Your task to perform on an android device: change the clock display to digital Image 0: 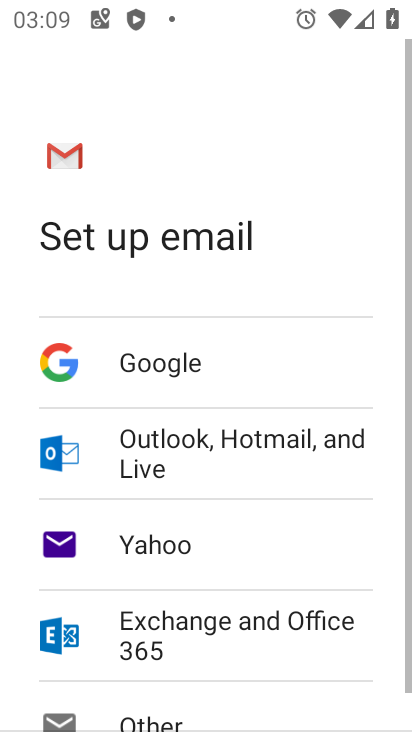
Step 0: press home button
Your task to perform on an android device: change the clock display to digital Image 1: 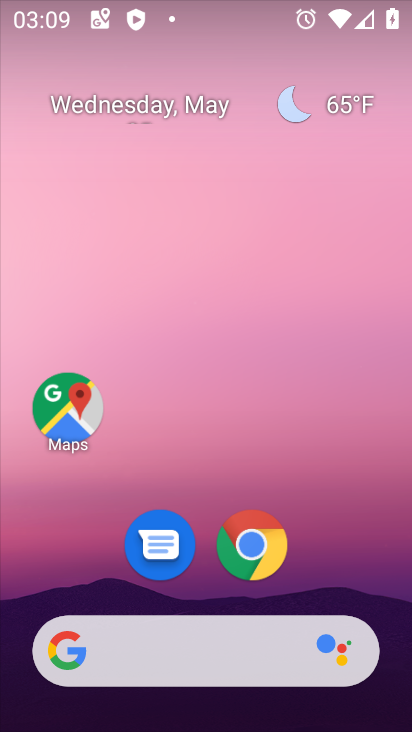
Step 1: drag from (342, 538) to (232, 10)
Your task to perform on an android device: change the clock display to digital Image 2: 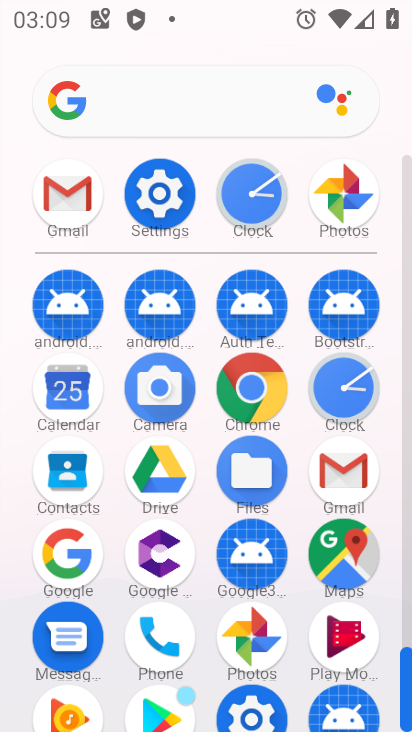
Step 2: click (340, 392)
Your task to perform on an android device: change the clock display to digital Image 3: 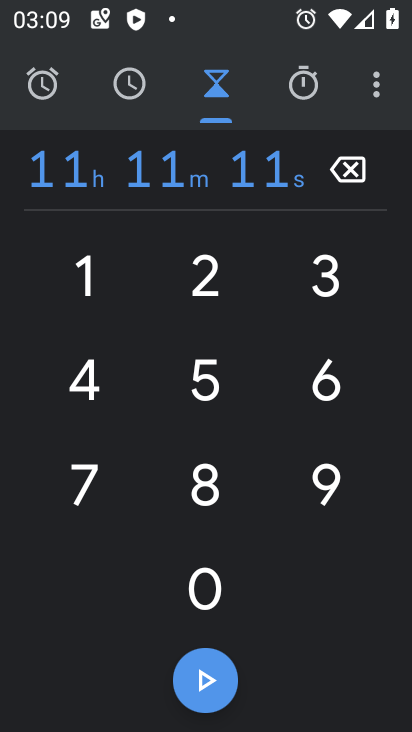
Step 3: click (373, 91)
Your task to perform on an android device: change the clock display to digital Image 4: 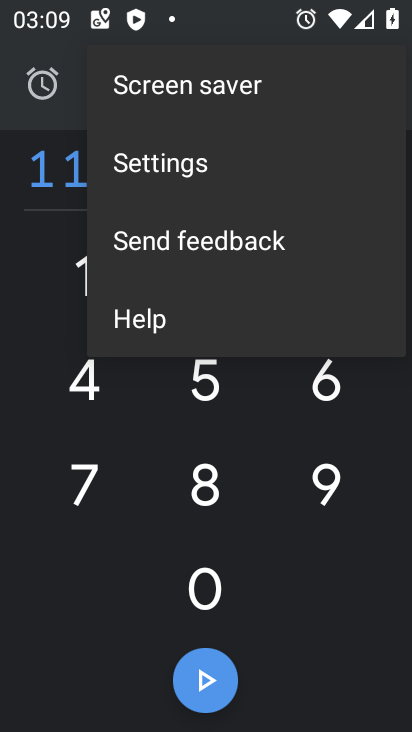
Step 4: click (231, 172)
Your task to perform on an android device: change the clock display to digital Image 5: 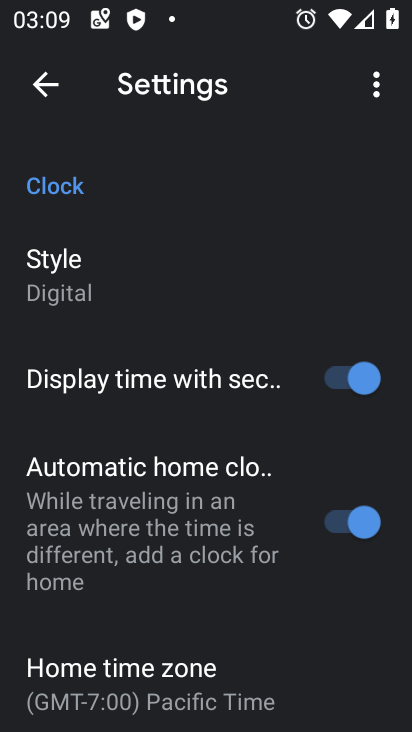
Step 5: task complete